Your task to perform on an android device: Go to Amazon Image 0: 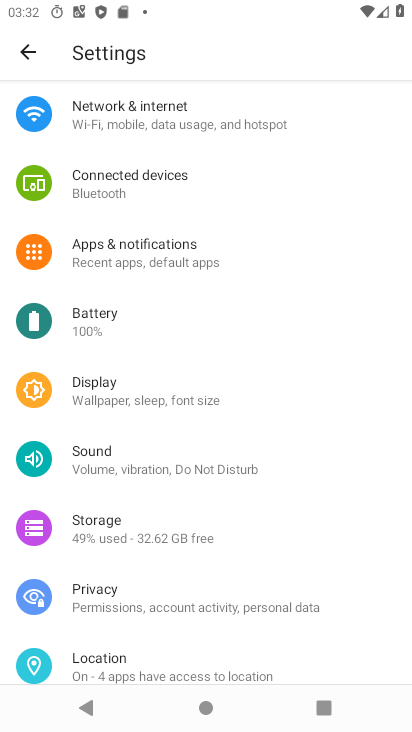
Step 0: press home button
Your task to perform on an android device: Go to Amazon Image 1: 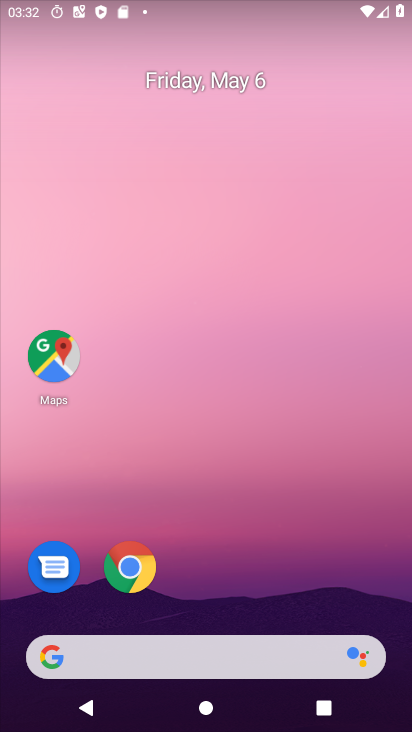
Step 1: click (138, 564)
Your task to perform on an android device: Go to Amazon Image 2: 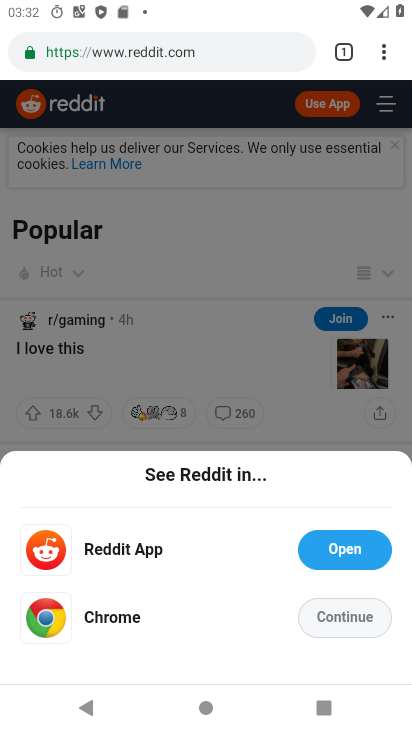
Step 2: click (148, 70)
Your task to perform on an android device: Go to Amazon Image 3: 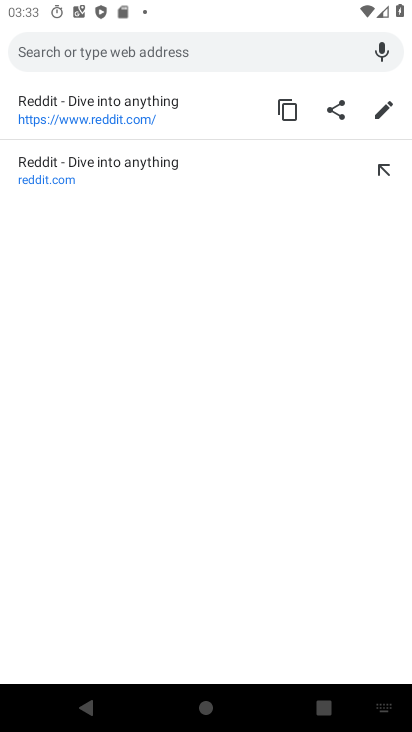
Step 3: type "amazon"
Your task to perform on an android device: Go to Amazon Image 4: 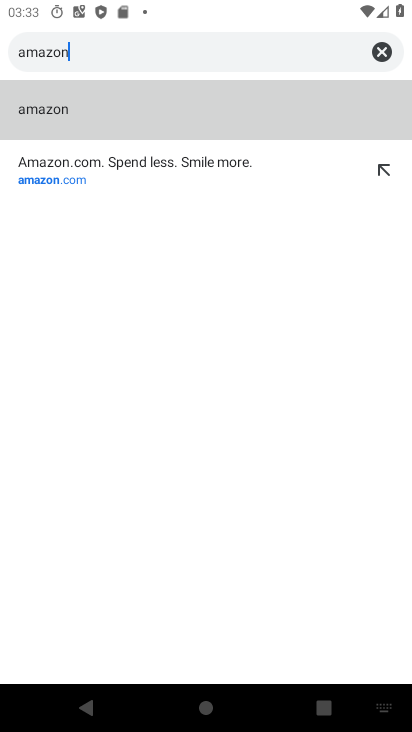
Step 4: click (48, 131)
Your task to perform on an android device: Go to Amazon Image 5: 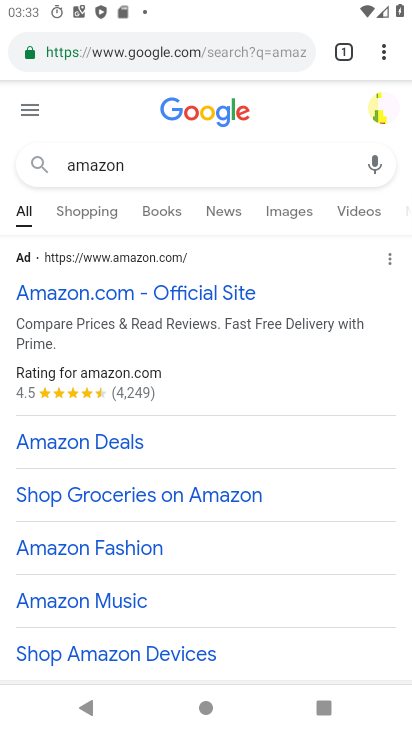
Step 5: task complete